Your task to perform on an android device: toggle sleep mode Image 0: 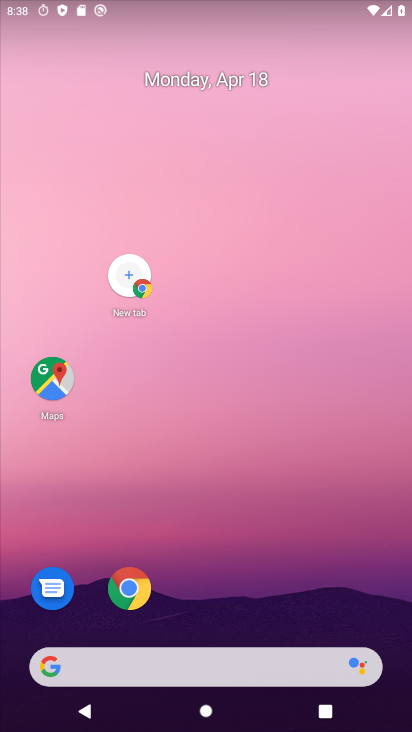
Step 0: drag from (300, 524) to (406, 12)
Your task to perform on an android device: toggle sleep mode Image 1: 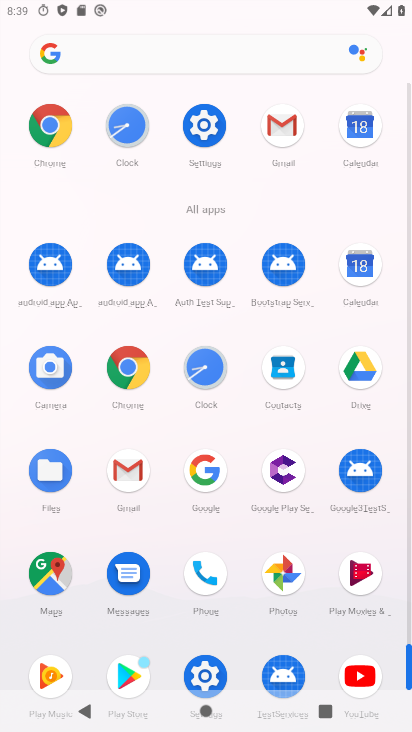
Step 1: click (203, 128)
Your task to perform on an android device: toggle sleep mode Image 2: 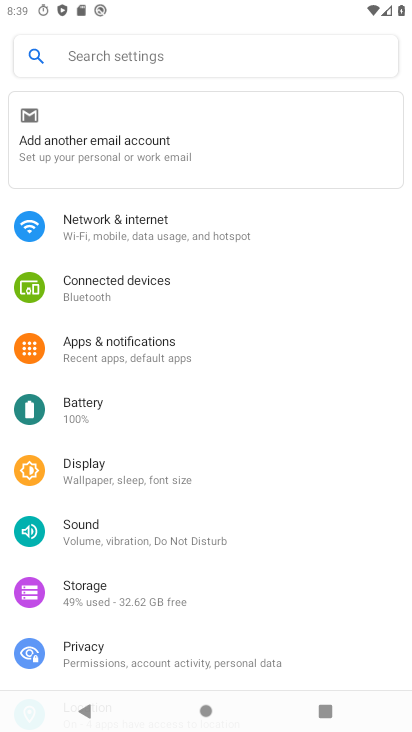
Step 2: drag from (136, 486) to (211, 216)
Your task to perform on an android device: toggle sleep mode Image 3: 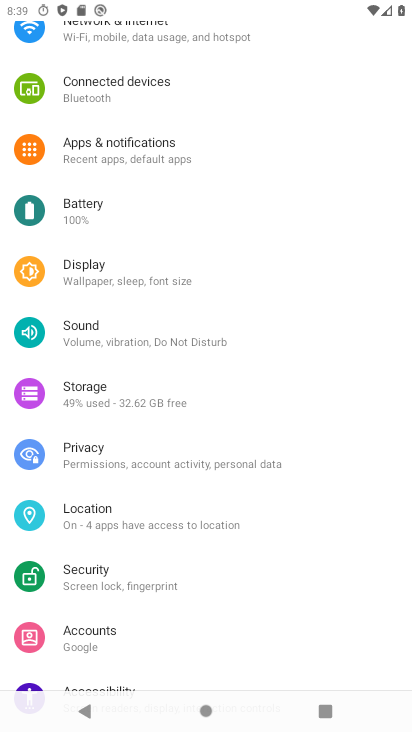
Step 3: drag from (201, 473) to (251, 109)
Your task to perform on an android device: toggle sleep mode Image 4: 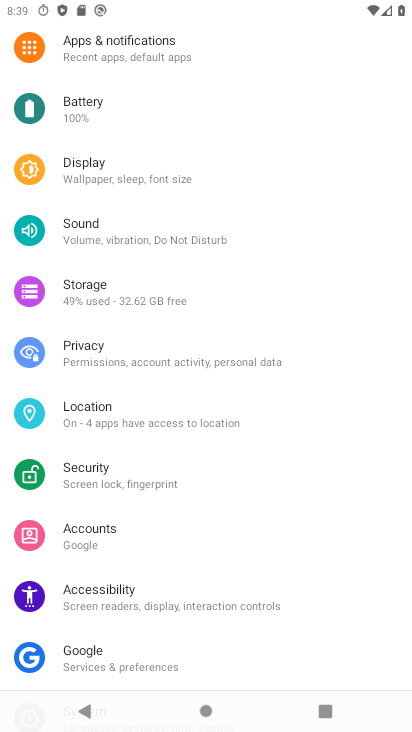
Step 4: drag from (161, 507) to (164, 243)
Your task to perform on an android device: toggle sleep mode Image 5: 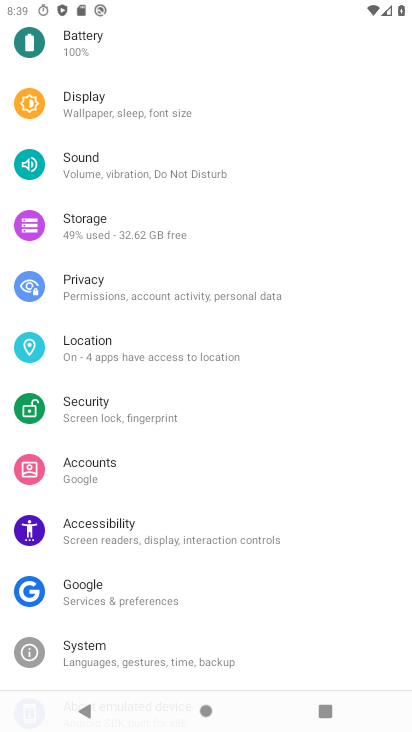
Step 5: drag from (137, 588) to (139, 238)
Your task to perform on an android device: toggle sleep mode Image 6: 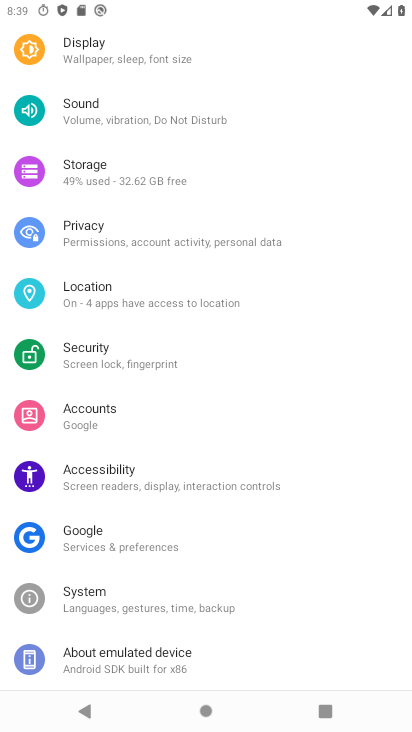
Step 6: click (117, 50)
Your task to perform on an android device: toggle sleep mode Image 7: 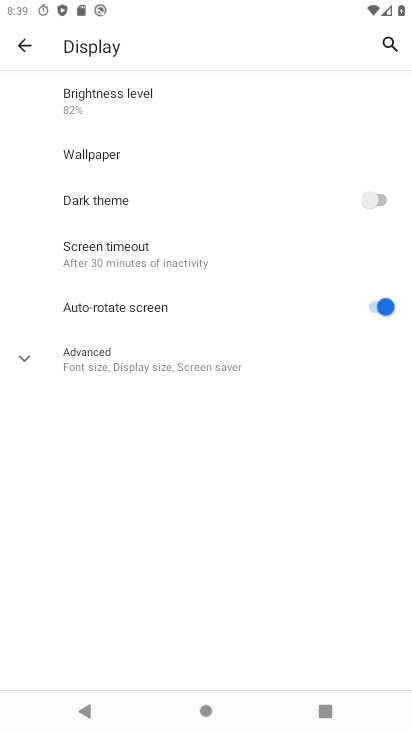
Step 7: click (146, 244)
Your task to perform on an android device: toggle sleep mode Image 8: 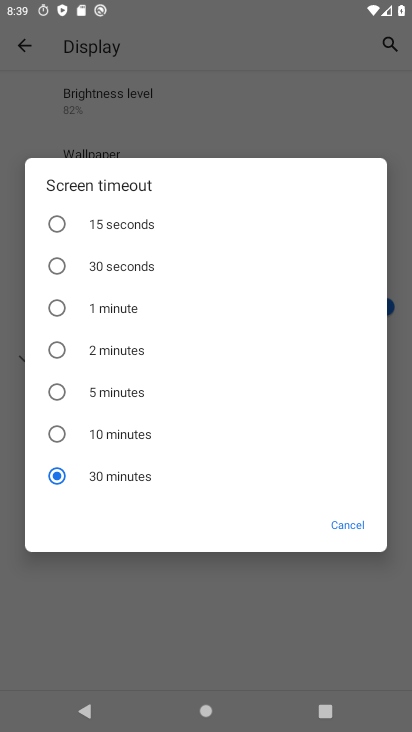
Step 8: click (57, 261)
Your task to perform on an android device: toggle sleep mode Image 9: 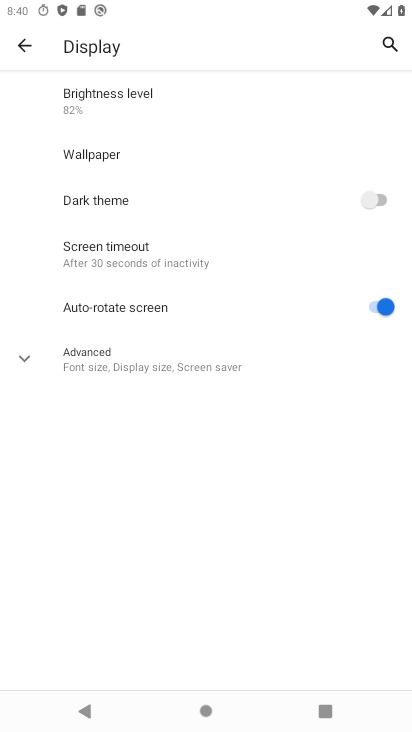
Step 9: task complete